Your task to perform on an android device: turn off wifi Image 0: 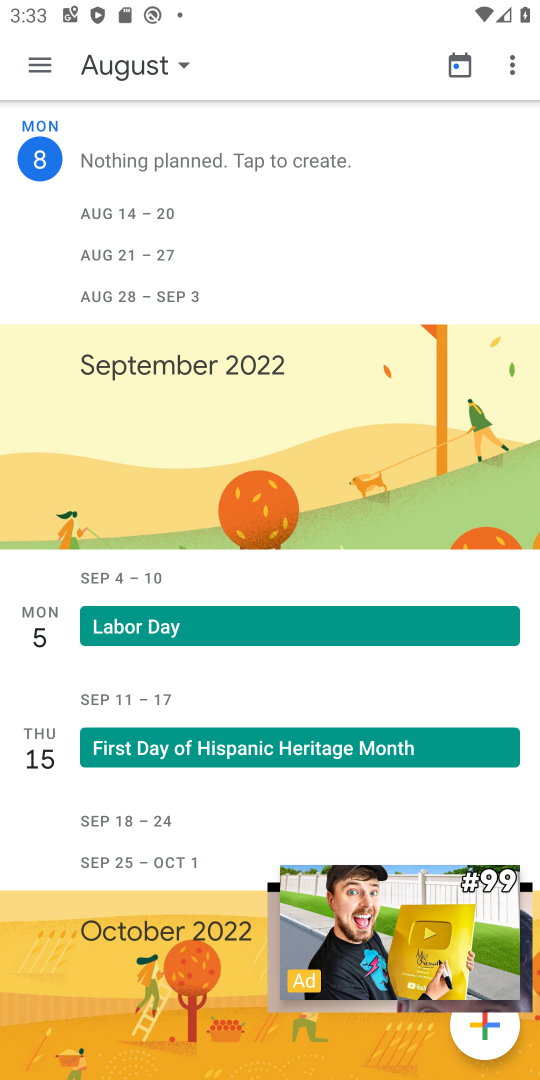
Step 0: press home button
Your task to perform on an android device: turn off wifi Image 1: 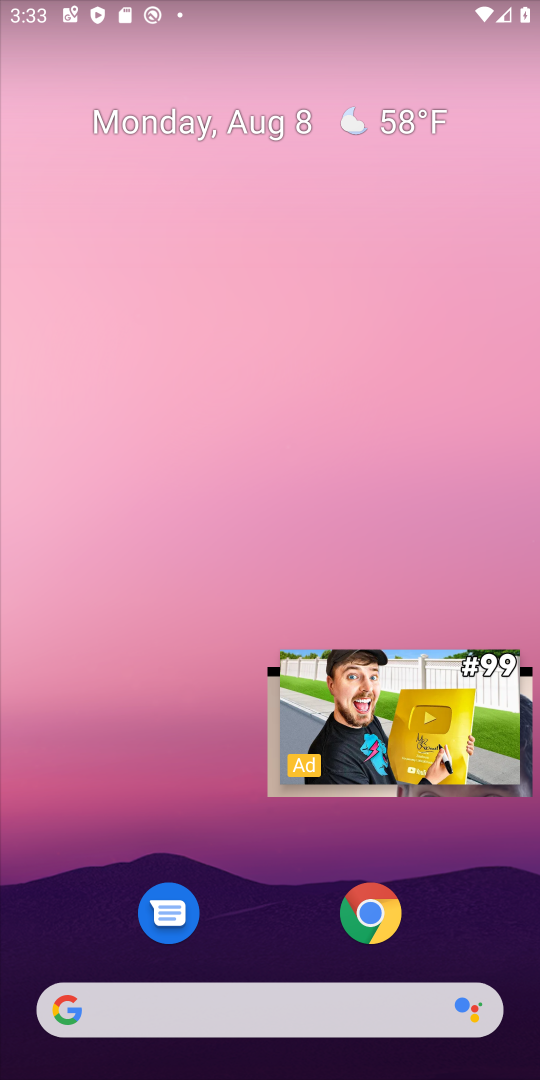
Step 1: drag from (67, 839) to (119, 155)
Your task to perform on an android device: turn off wifi Image 2: 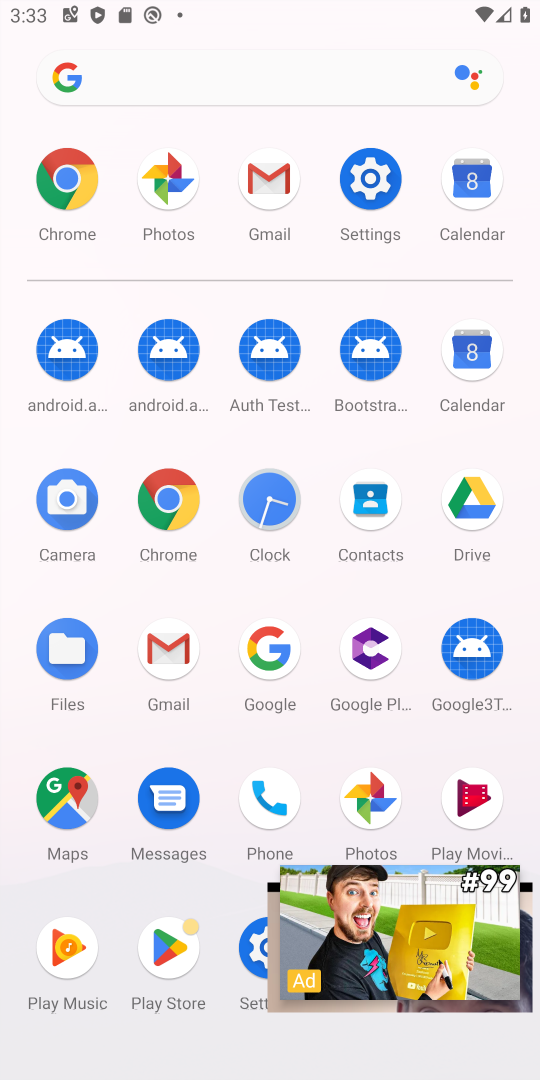
Step 2: click (369, 164)
Your task to perform on an android device: turn off wifi Image 3: 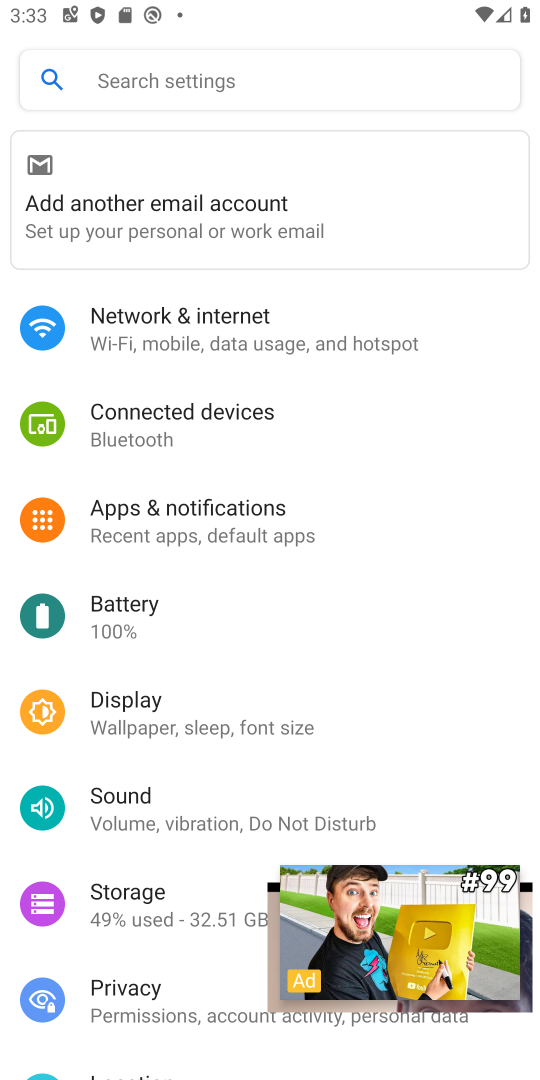
Step 3: click (390, 333)
Your task to perform on an android device: turn off wifi Image 4: 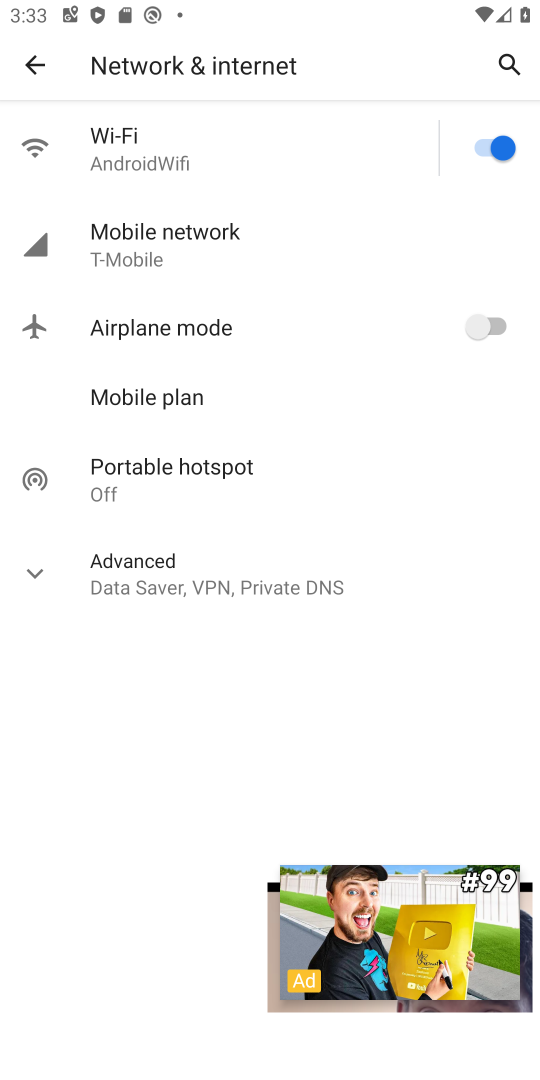
Step 4: click (503, 149)
Your task to perform on an android device: turn off wifi Image 5: 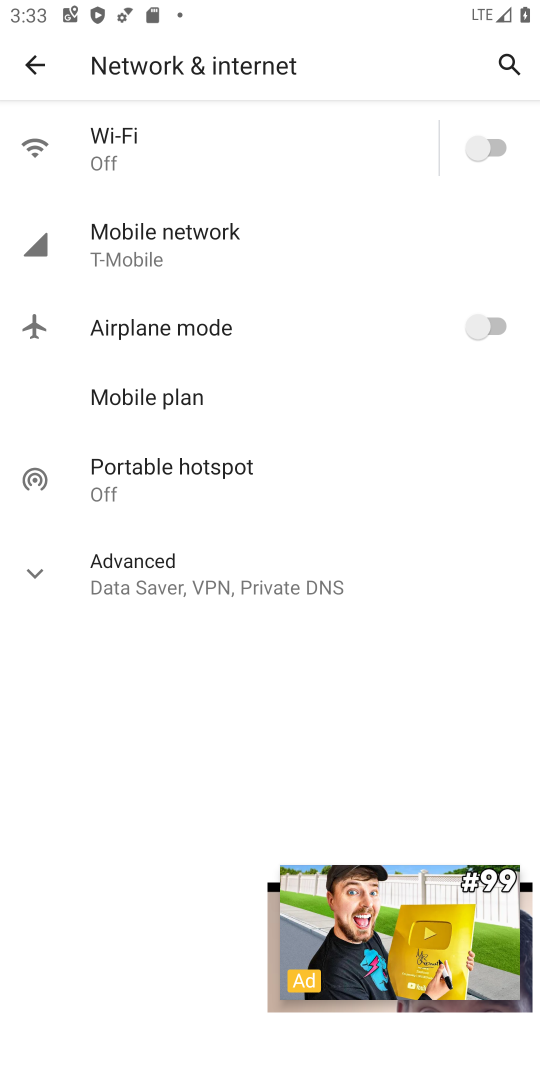
Step 5: task complete